Your task to perform on an android device: turn off javascript in the chrome app Image 0: 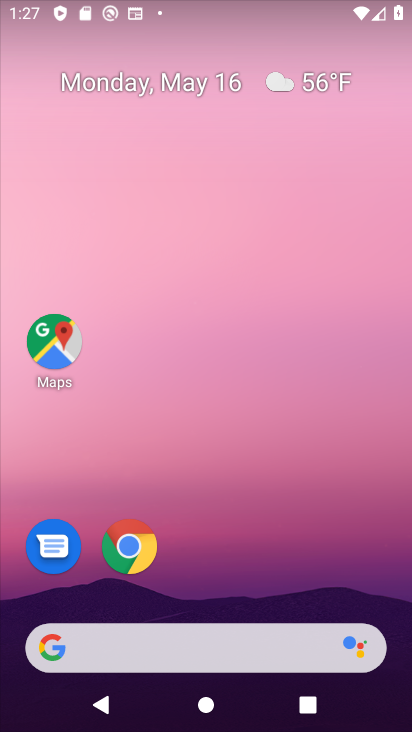
Step 0: click (149, 552)
Your task to perform on an android device: turn off javascript in the chrome app Image 1: 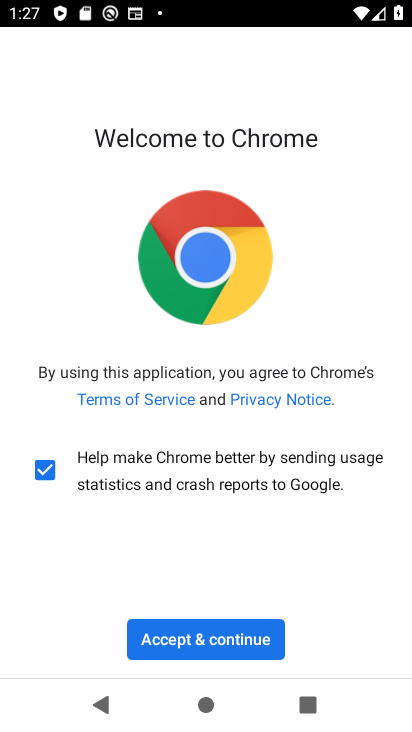
Step 1: click (219, 637)
Your task to perform on an android device: turn off javascript in the chrome app Image 2: 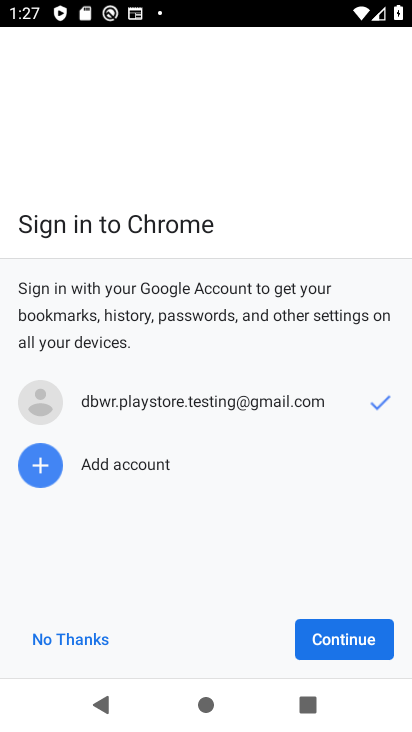
Step 2: click (337, 641)
Your task to perform on an android device: turn off javascript in the chrome app Image 3: 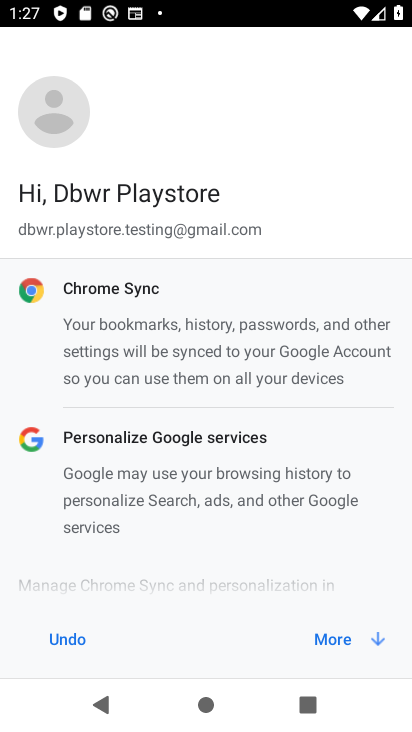
Step 3: click (338, 641)
Your task to perform on an android device: turn off javascript in the chrome app Image 4: 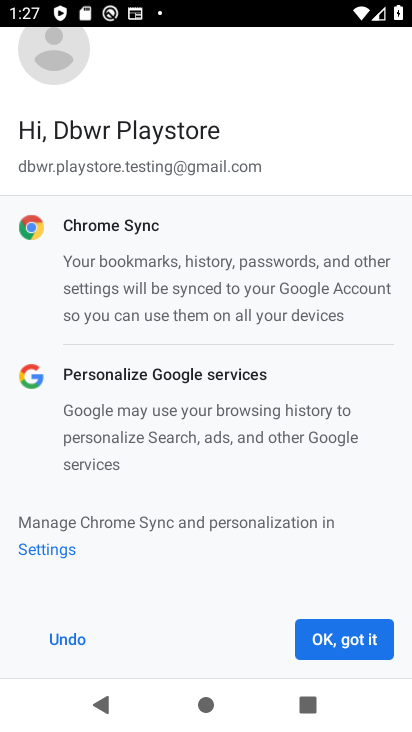
Step 4: click (345, 635)
Your task to perform on an android device: turn off javascript in the chrome app Image 5: 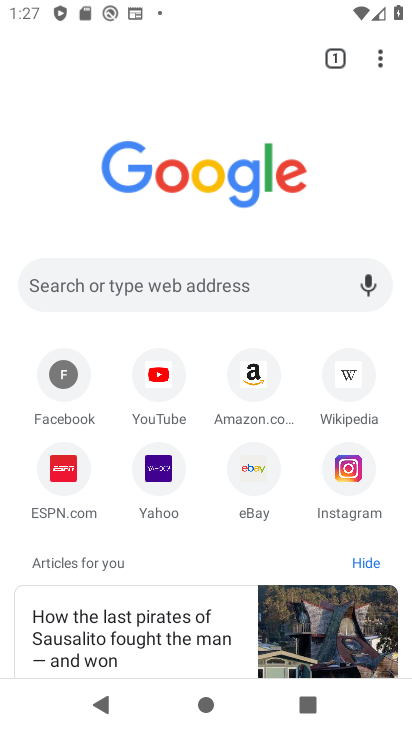
Step 5: drag from (376, 60) to (212, 487)
Your task to perform on an android device: turn off javascript in the chrome app Image 6: 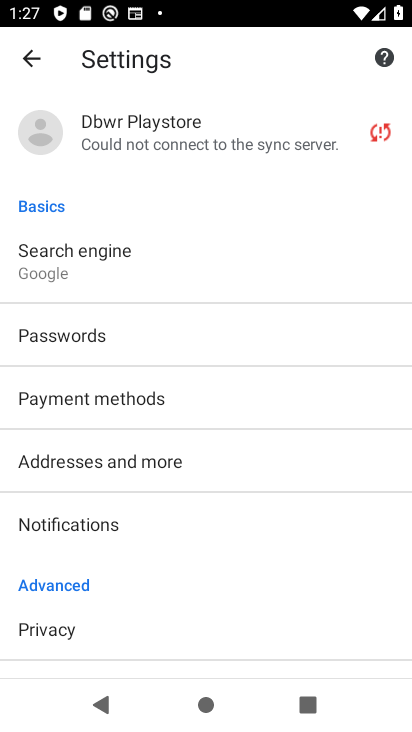
Step 6: drag from (276, 510) to (280, 187)
Your task to perform on an android device: turn off javascript in the chrome app Image 7: 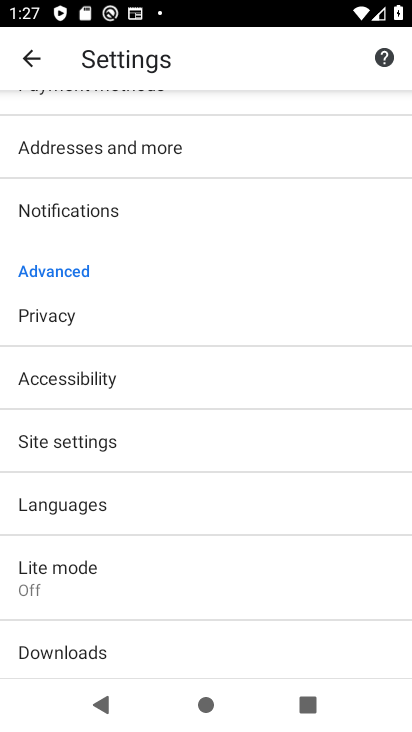
Step 7: click (152, 443)
Your task to perform on an android device: turn off javascript in the chrome app Image 8: 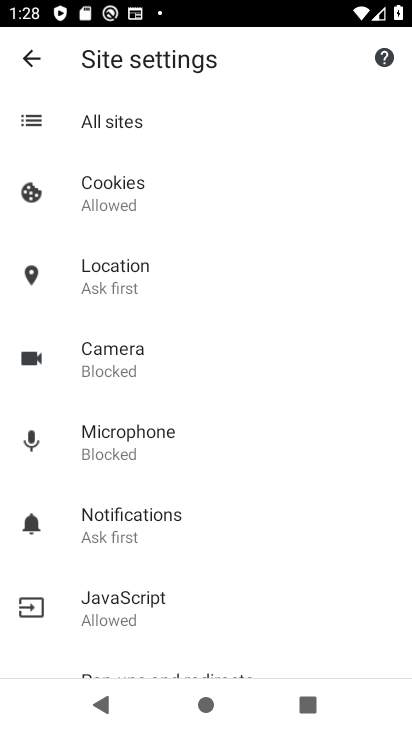
Step 8: click (97, 603)
Your task to perform on an android device: turn off javascript in the chrome app Image 9: 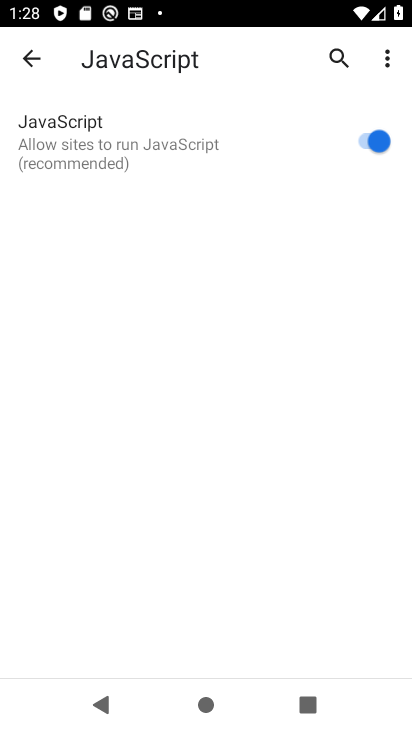
Step 9: click (368, 144)
Your task to perform on an android device: turn off javascript in the chrome app Image 10: 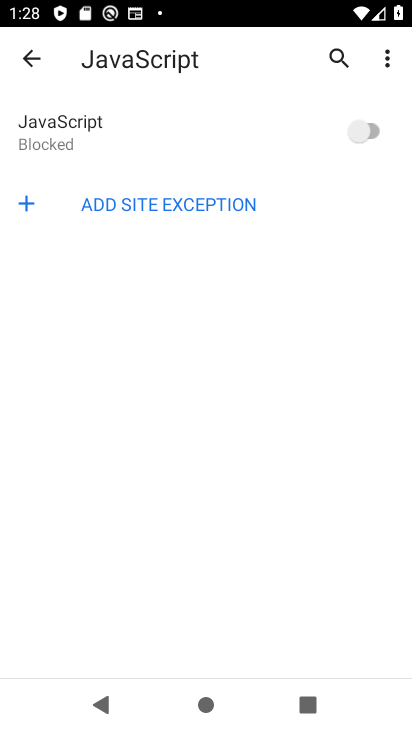
Step 10: task complete